Your task to perform on an android device: Add "bose quietcomfort 35" to the cart on amazon.com Image 0: 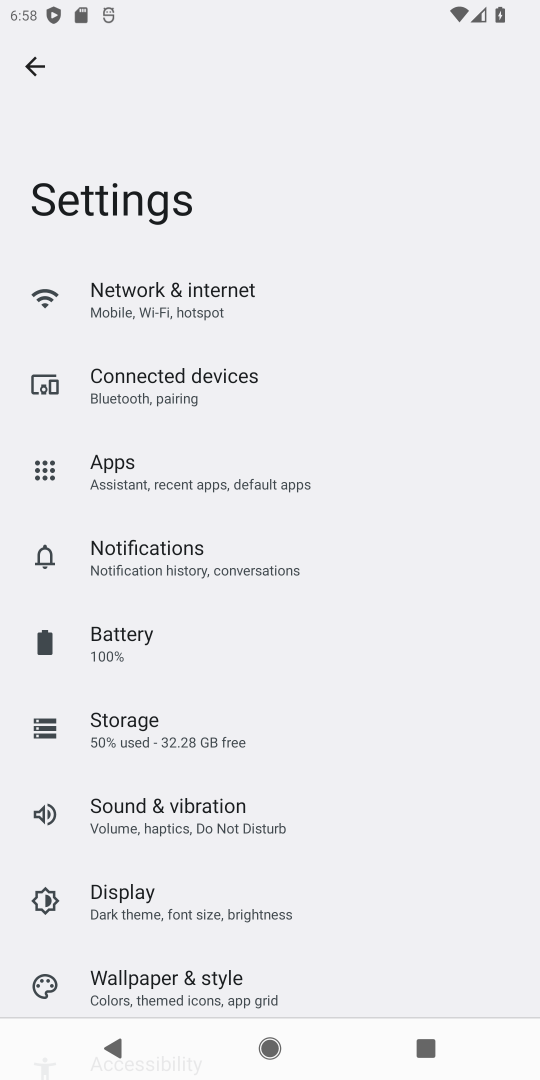
Step 0: press home button
Your task to perform on an android device: Add "bose quietcomfort 35" to the cart on amazon.com Image 1: 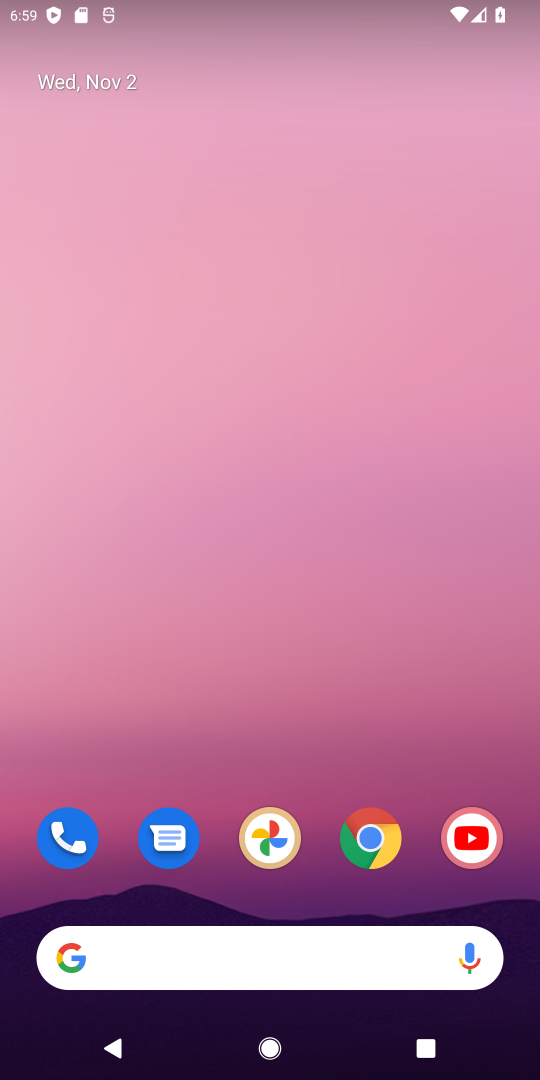
Step 1: click (391, 859)
Your task to perform on an android device: Add "bose quietcomfort 35" to the cart on amazon.com Image 2: 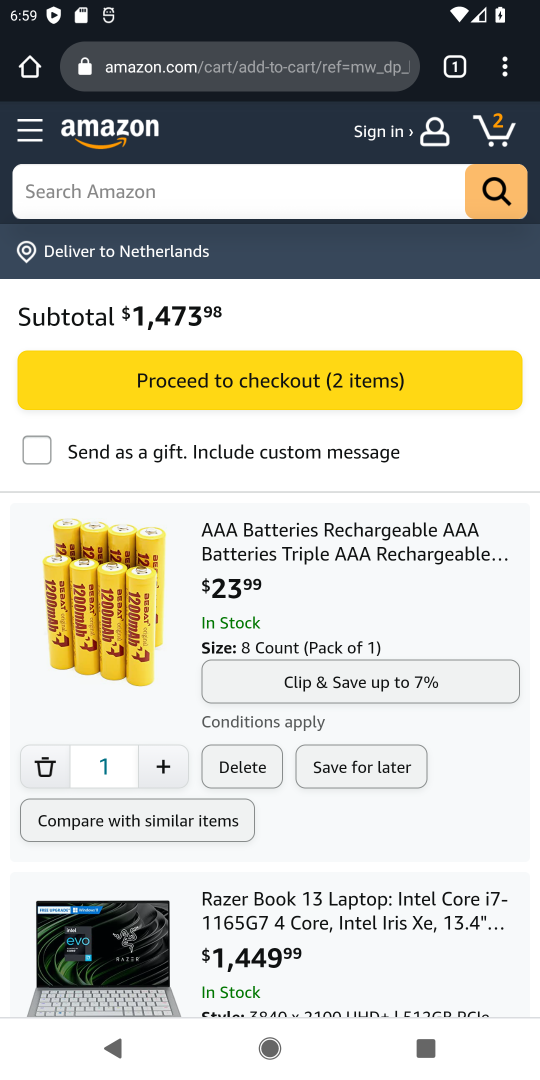
Step 2: click (173, 53)
Your task to perform on an android device: Add "bose quietcomfort 35" to the cart on amazon.com Image 3: 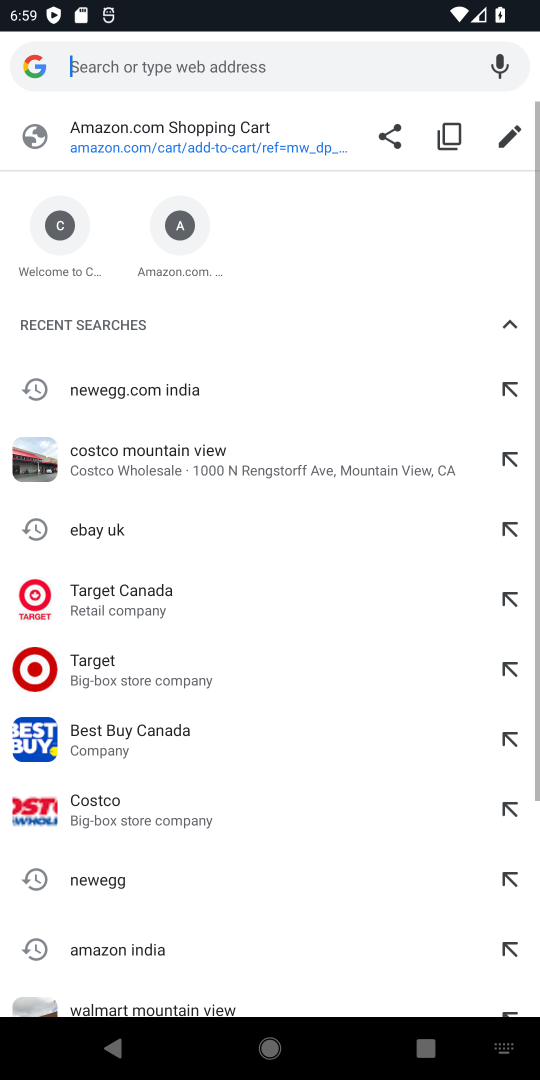
Step 3: type "amazon.com"
Your task to perform on an android device: Add "bose quietcomfort 35" to the cart on amazon.com Image 4: 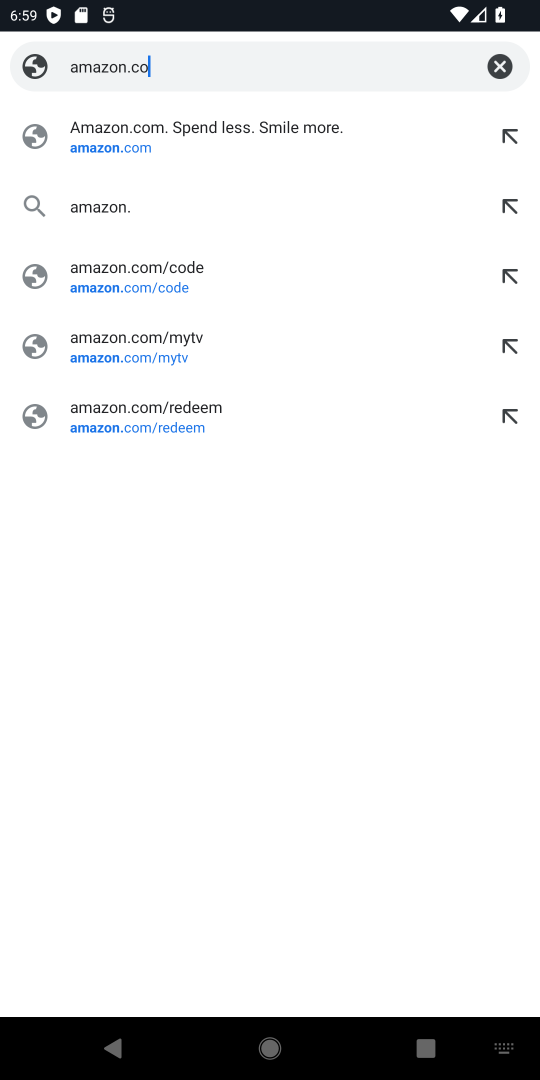
Step 4: type ""
Your task to perform on an android device: Add "bose quietcomfort 35" to the cart on amazon.com Image 5: 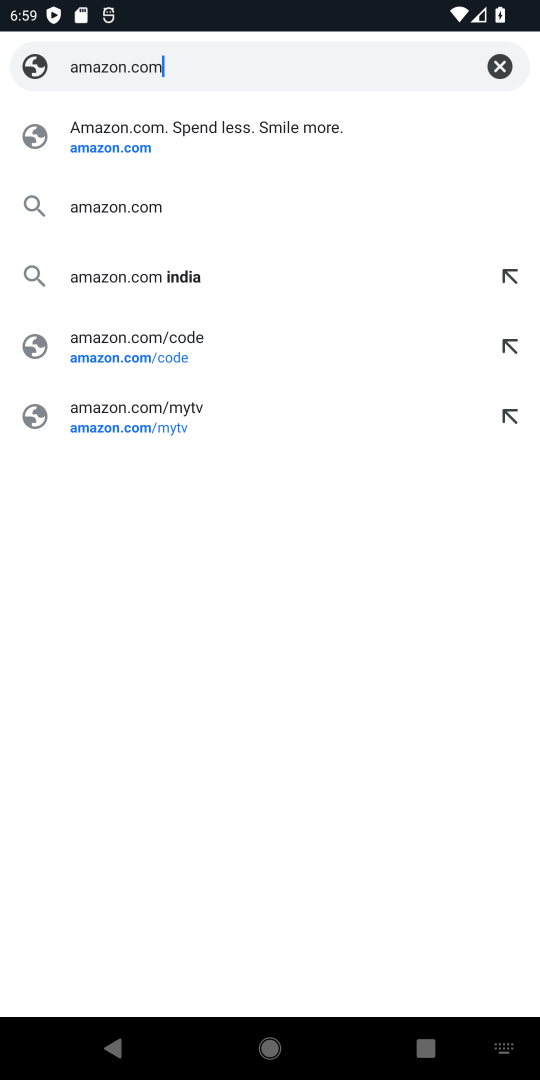
Step 5: press enter
Your task to perform on an android device: Add "bose quietcomfort 35" to the cart on amazon.com Image 6: 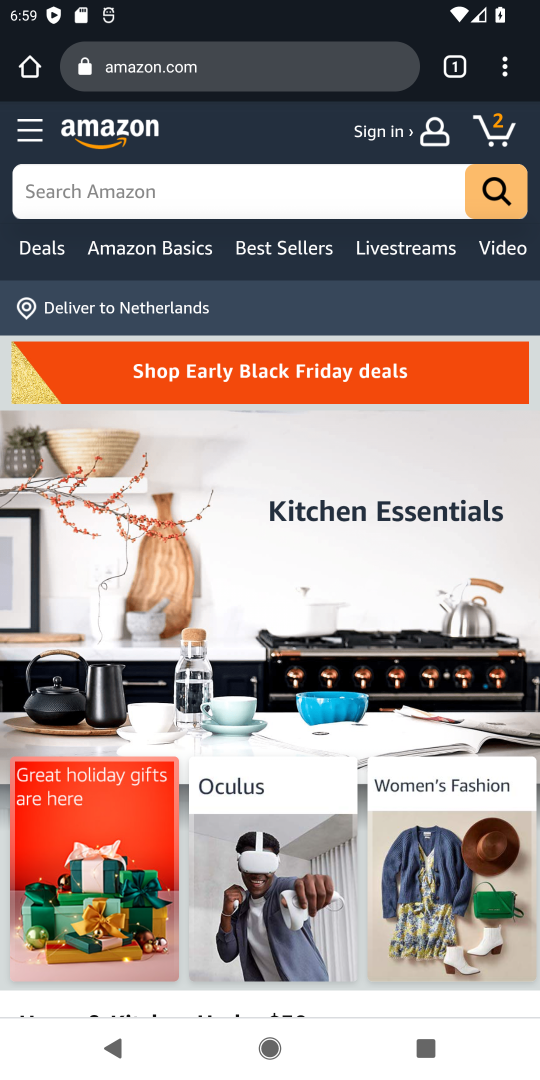
Step 6: click (255, 181)
Your task to perform on an android device: Add "bose quietcomfort 35" to the cart on amazon.com Image 7: 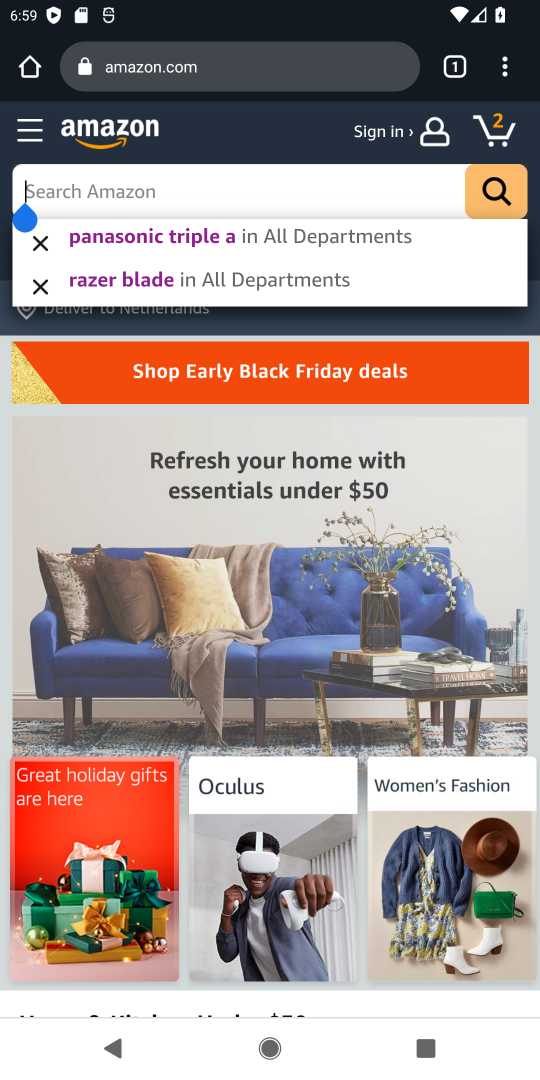
Step 7: type "bose quietcomfort 35"
Your task to perform on an android device: Add "bose quietcomfort 35" to the cart on amazon.com Image 8: 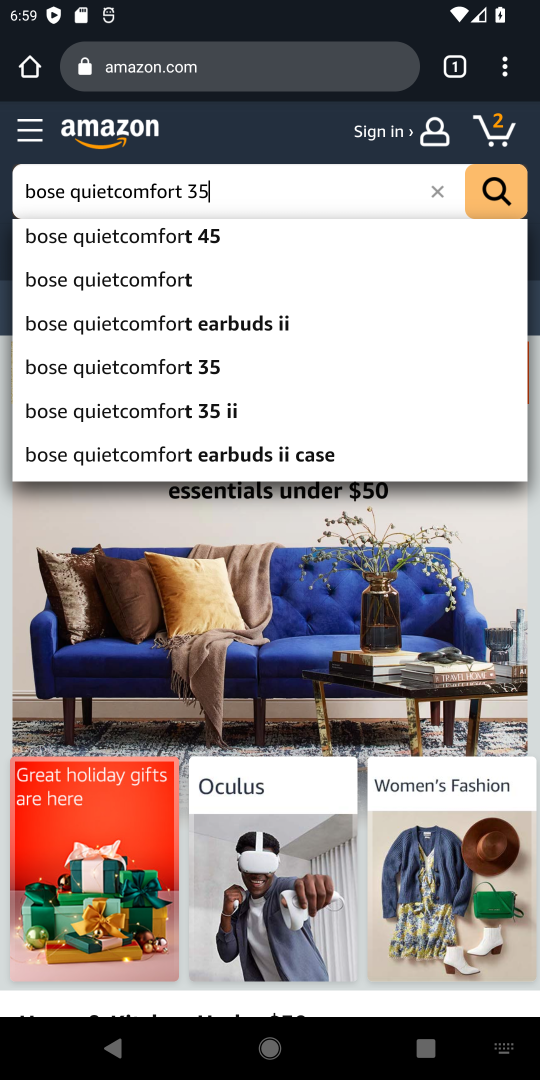
Step 8: type ""
Your task to perform on an android device: Add "bose quietcomfort 35" to the cart on amazon.com Image 9: 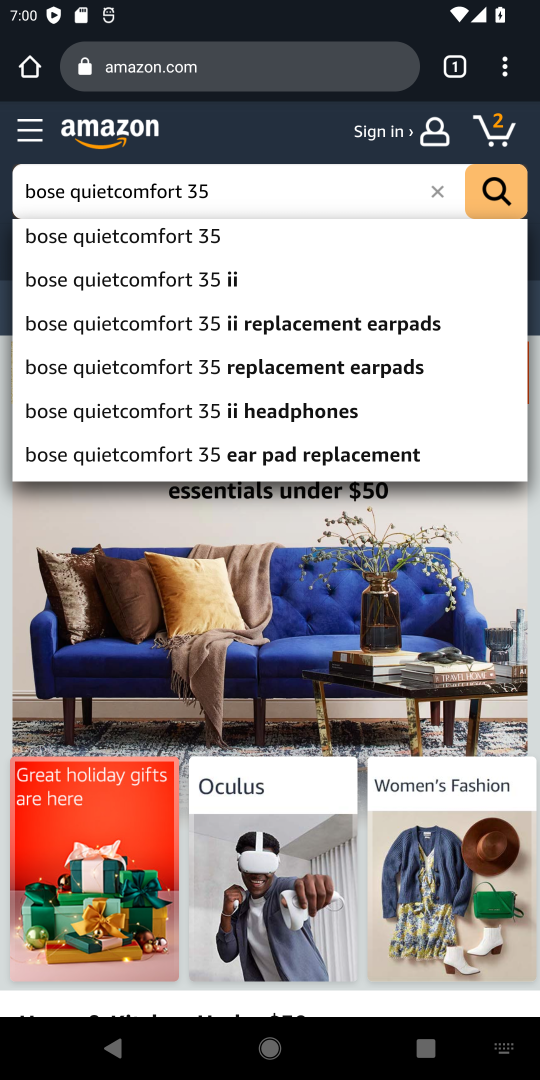
Step 9: press enter
Your task to perform on an android device: Add "bose quietcomfort 35" to the cart on amazon.com Image 10: 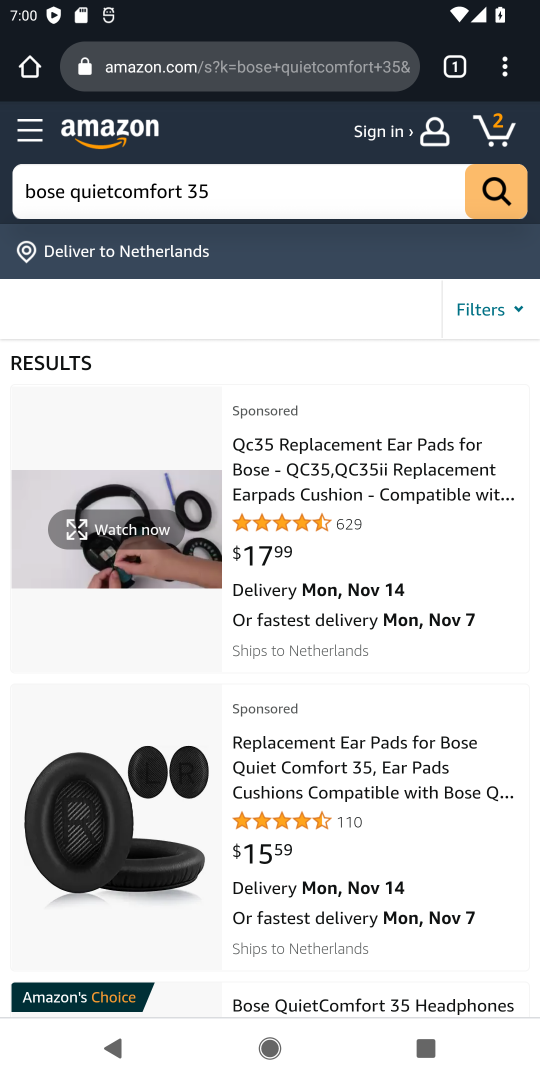
Step 10: click (346, 486)
Your task to perform on an android device: Add "bose quietcomfort 35" to the cart on amazon.com Image 11: 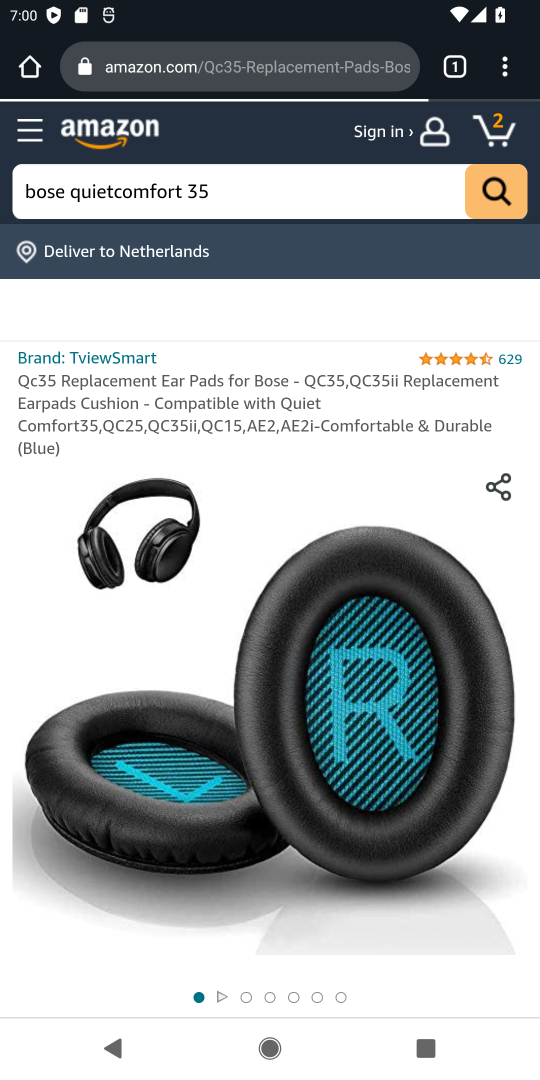
Step 11: drag from (402, 863) to (404, 698)
Your task to perform on an android device: Add "bose quietcomfort 35" to the cart on amazon.com Image 12: 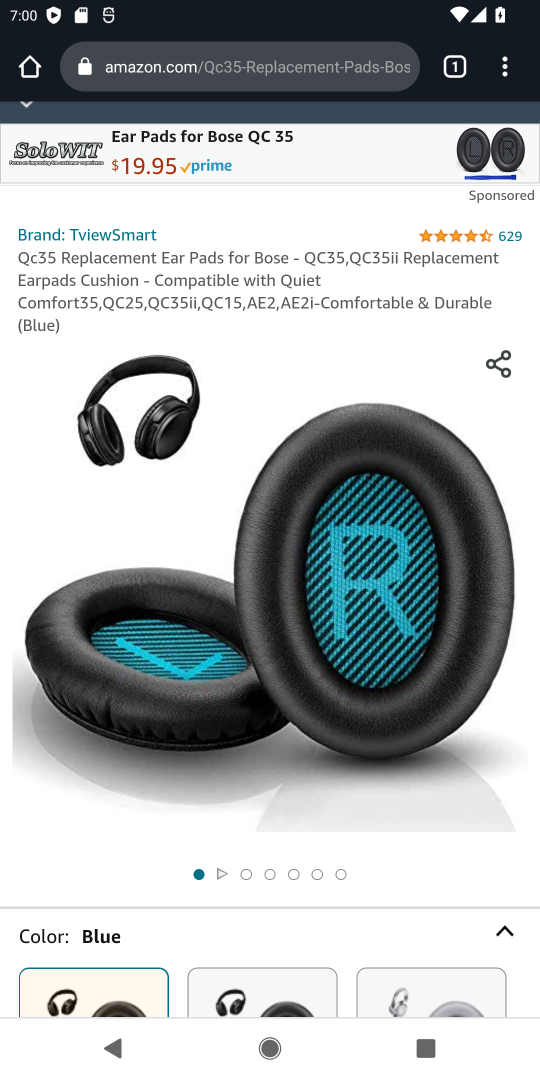
Step 12: press back button
Your task to perform on an android device: Add "bose quietcomfort 35" to the cart on amazon.com Image 13: 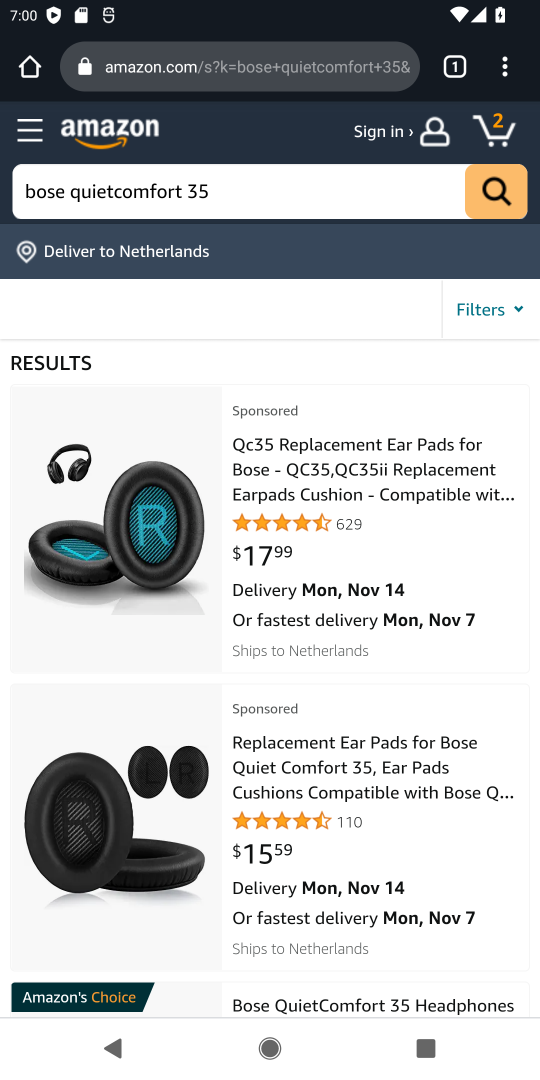
Step 13: drag from (455, 901) to (418, 512)
Your task to perform on an android device: Add "bose quietcomfort 35" to the cart on amazon.com Image 14: 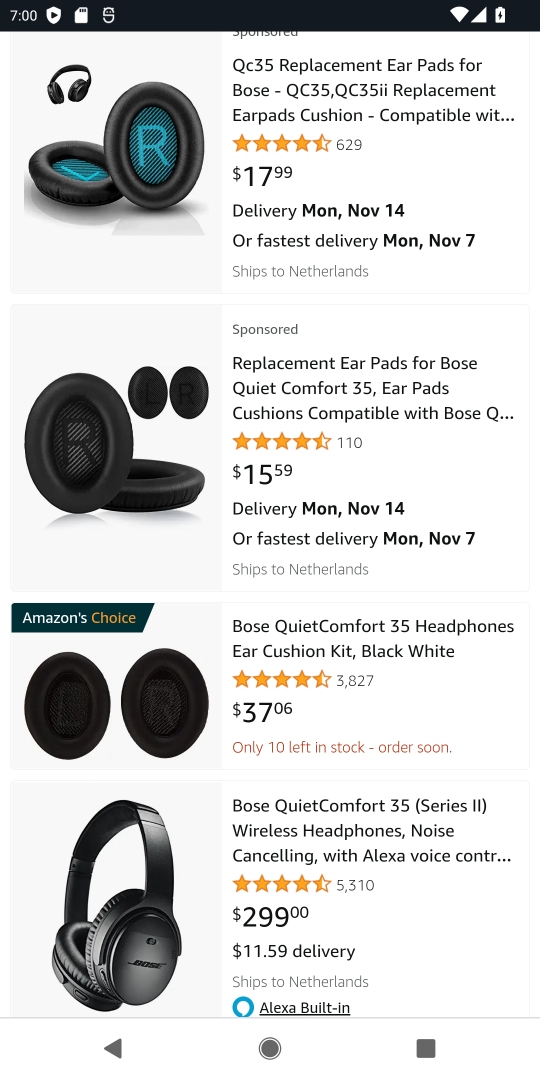
Step 14: click (362, 850)
Your task to perform on an android device: Add "bose quietcomfort 35" to the cart on amazon.com Image 15: 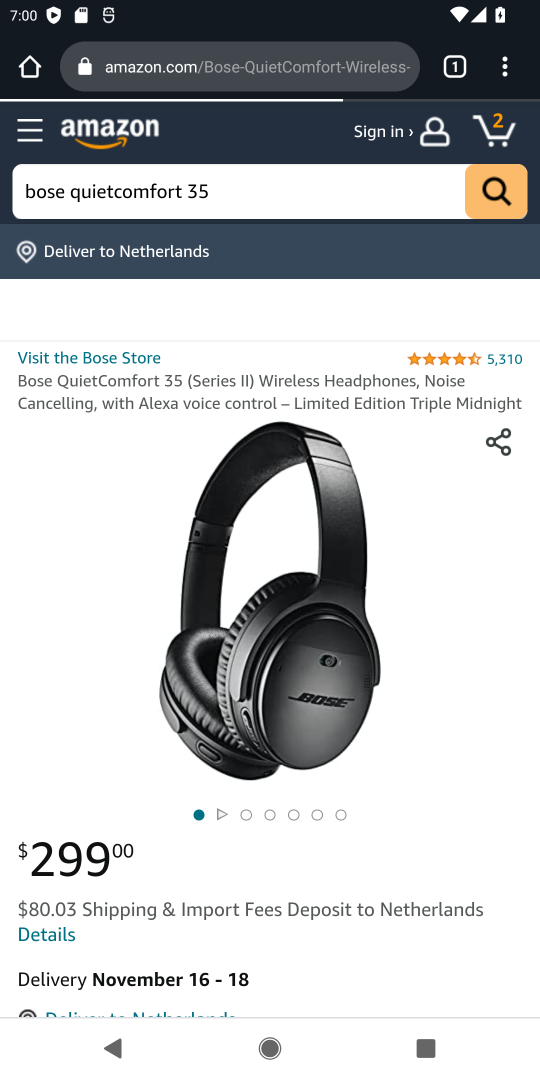
Step 15: drag from (360, 850) to (334, 505)
Your task to perform on an android device: Add "bose quietcomfort 35" to the cart on amazon.com Image 16: 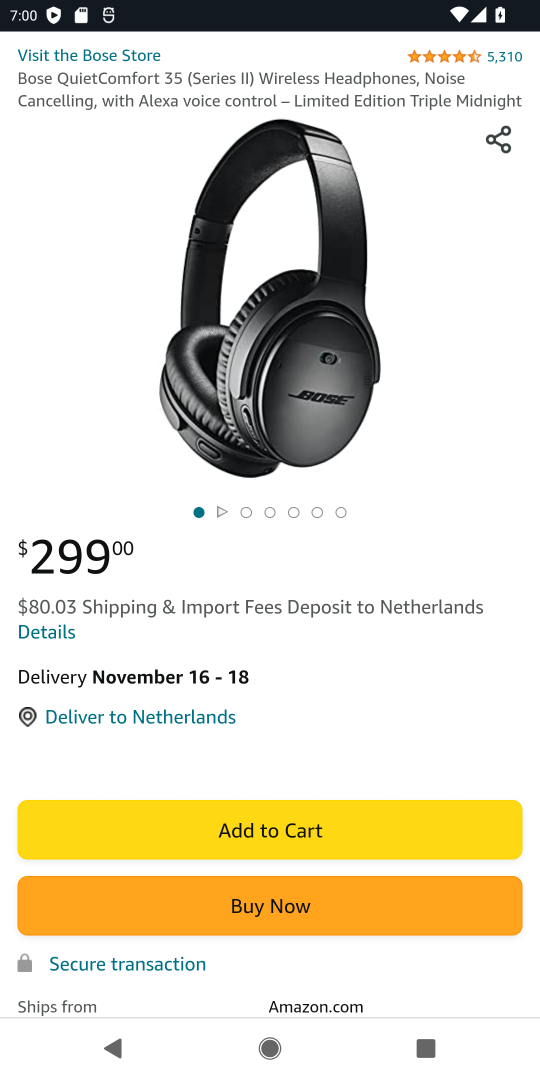
Step 16: click (367, 819)
Your task to perform on an android device: Add "bose quietcomfort 35" to the cart on amazon.com Image 17: 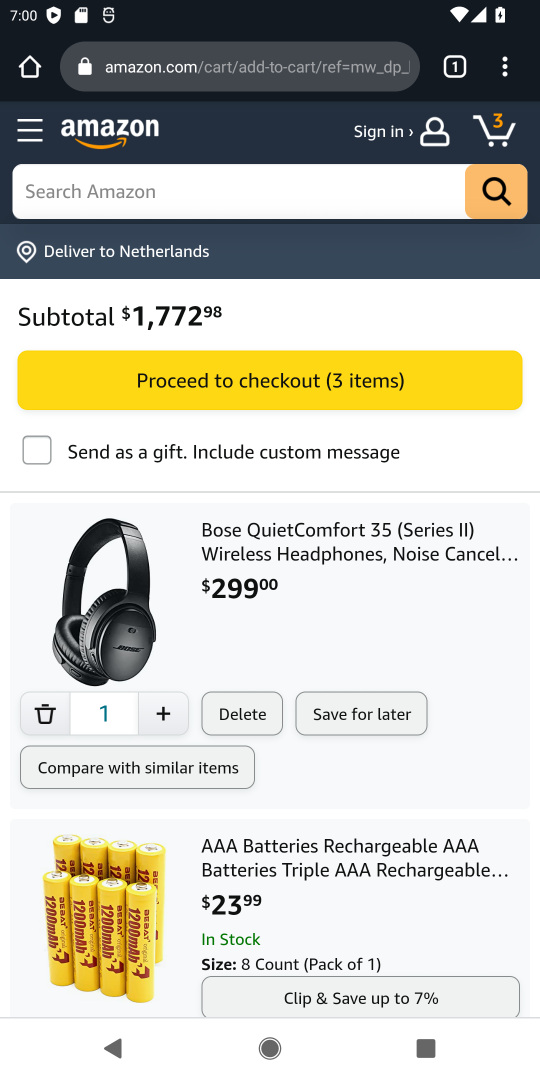
Step 17: click (292, 384)
Your task to perform on an android device: Add "bose quietcomfort 35" to the cart on amazon.com Image 18: 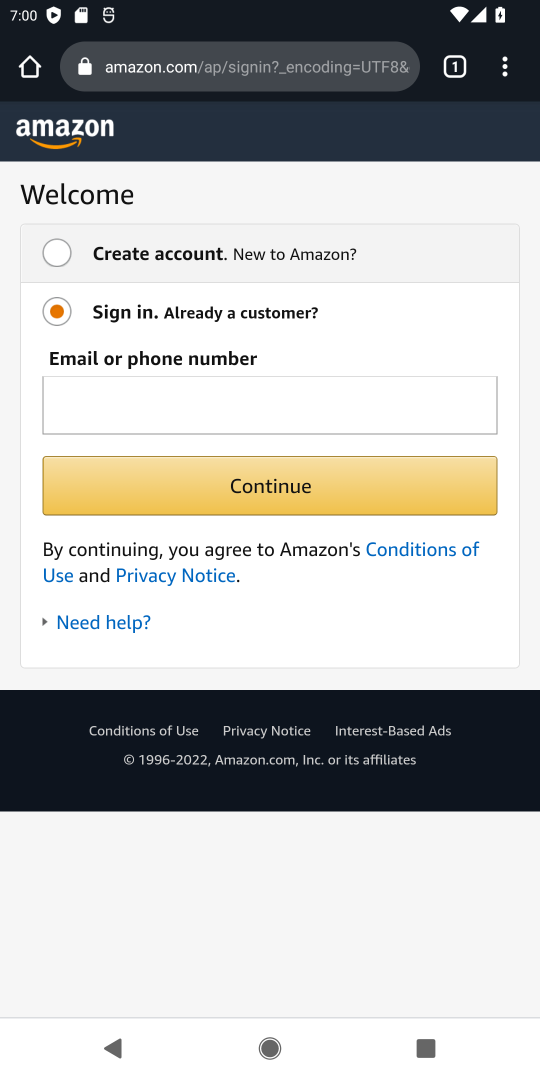
Step 18: task complete